Your task to perform on an android device: allow notifications from all sites in the chrome app Image 0: 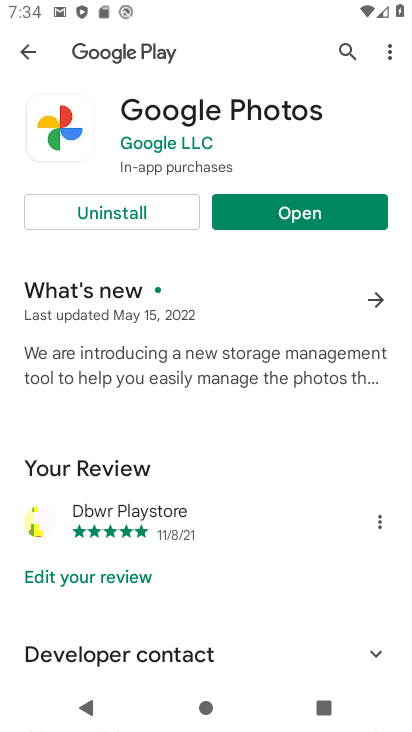
Step 0: press home button
Your task to perform on an android device: allow notifications from all sites in the chrome app Image 1: 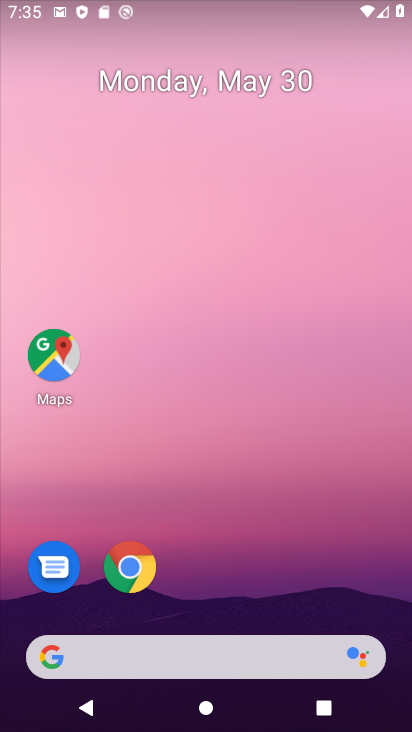
Step 1: task complete